Your task to perform on an android device: toggle notifications settings in the gmail app Image 0: 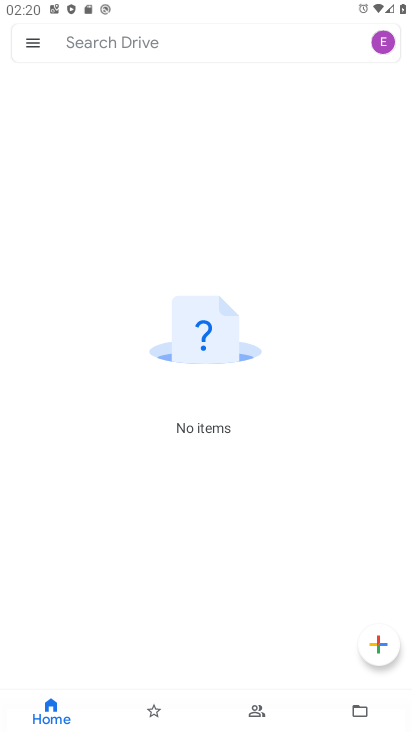
Step 0: press home button
Your task to perform on an android device: toggle notifications settings in the gmail app Image 1: 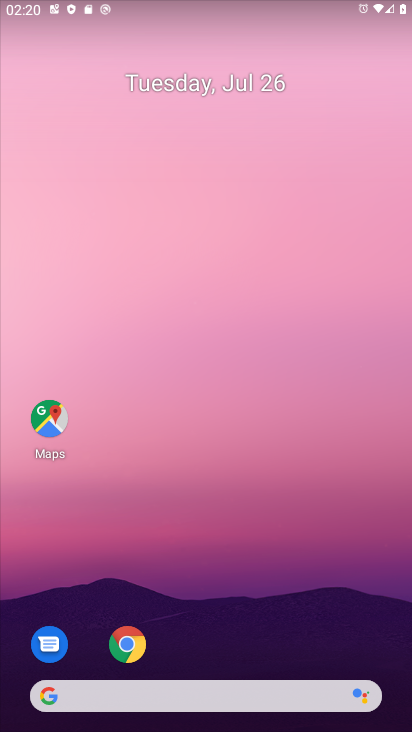
Step 1: drag from (219, 667) to (216, 219)
Your task to perform on an android device: toggle notifications settings in the gmail app Image 2: 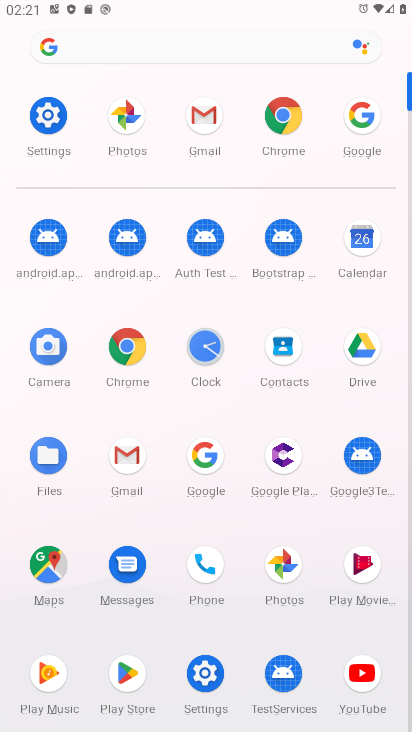
Step 2: click (129, 450)
Your task to perform on an android device: toggle notifications settings in the gmail app Image 3: 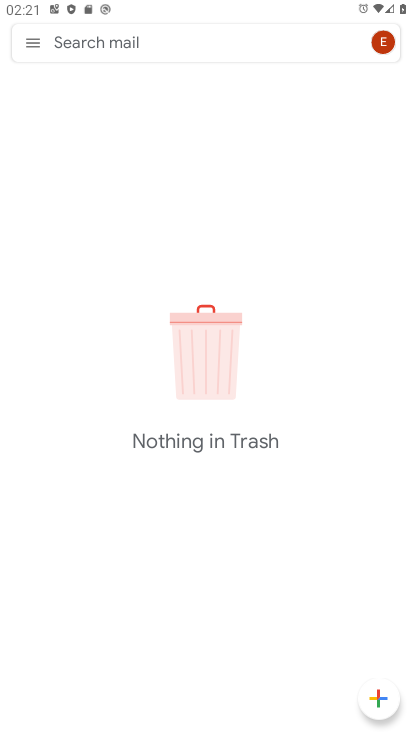
Step 3: click (25, 42)
Your task to perform on an android device: toggle notifications settings in the gmail app Image 4: 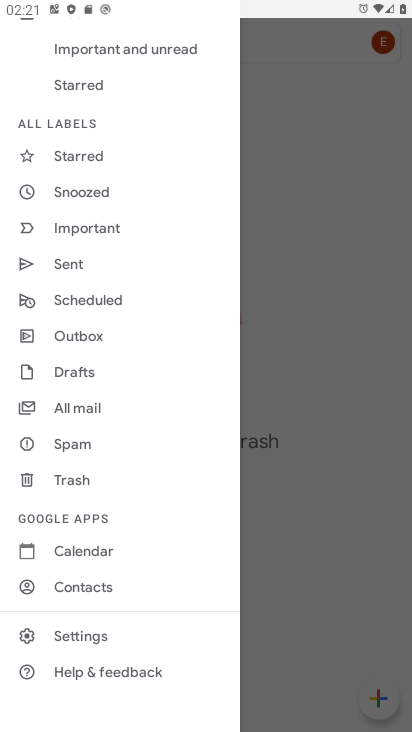
Step 4: click (85, 633)
Your task to perform on an android device: toggle notifications settings in the gmail app Image 5: 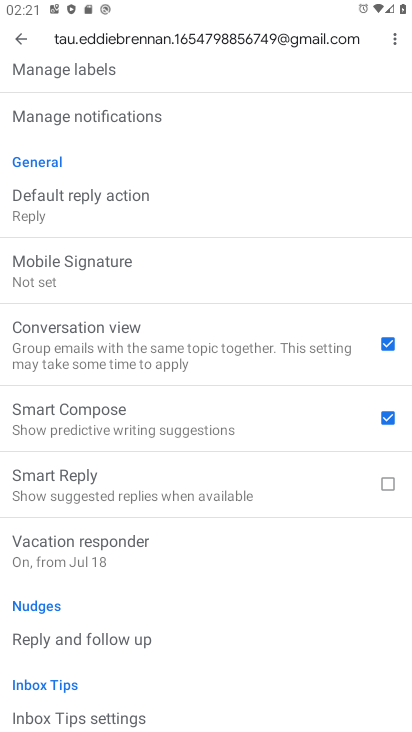
Step 5: drag from (120, 124) to (111, 543)
Your task to perform on an android device: toggle notifications settings in the gmail app Image 6: 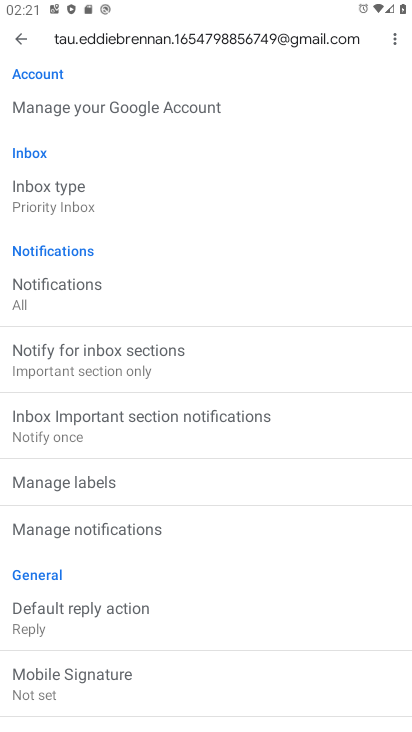
Step 6: click (72, 294)
Your task to perform on an android device: toggle notifications settings in the gmail app Image 7: 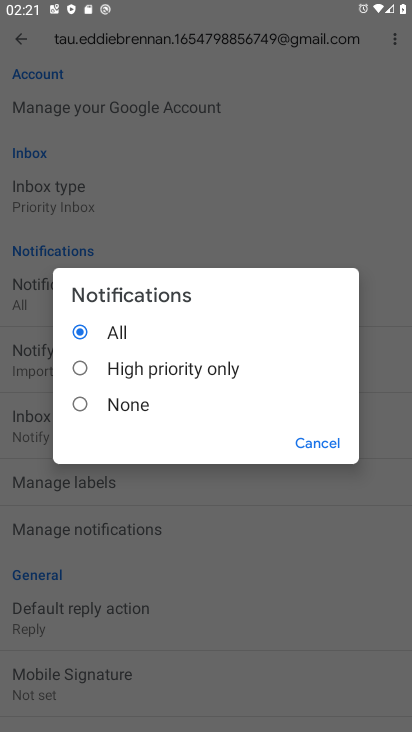
Step 7: click (129, 397)
Your task to perform on an android device: toggle notifications settings in the gmail app Image 8: 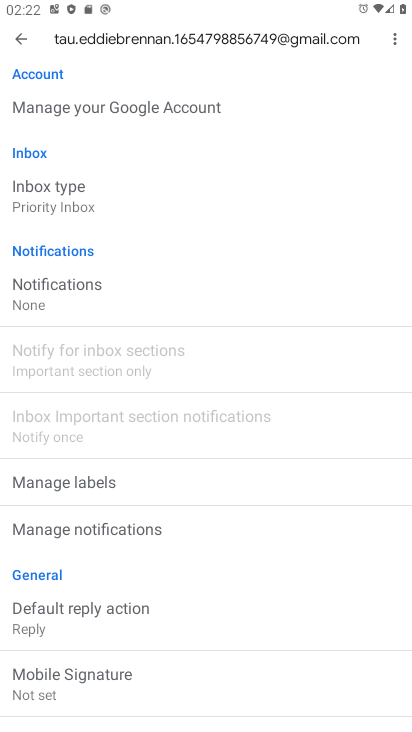
Step 8: click (50, 290)
Your task to perform on an android device: toggle notifications settings in the gmail app Image 9: 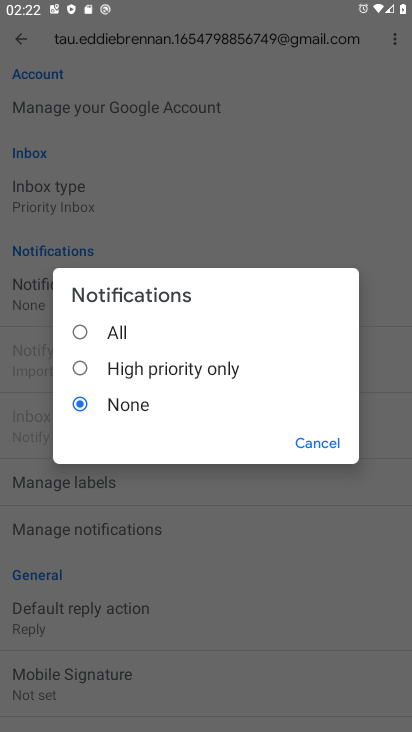
Step 9: click (112, 328)
Your task to perform on an android device: toggle notifications settings in the gmail app Image 10: 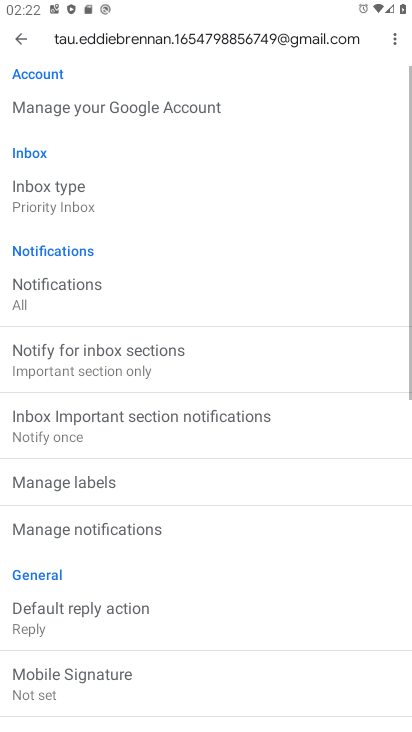
Step 10: task complete